Your task to perform on an android device: Turn off the flashlight Image 0: 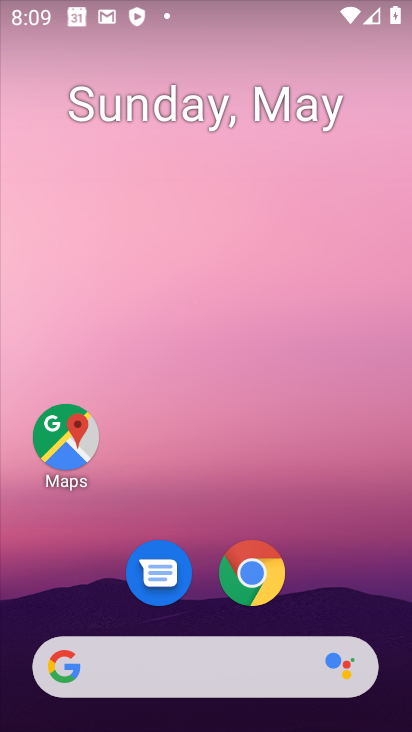
Step 0: drag from (226, 501) to (217, 0)
Your task to perform on an android device: Turn off the flashlight Image 1: 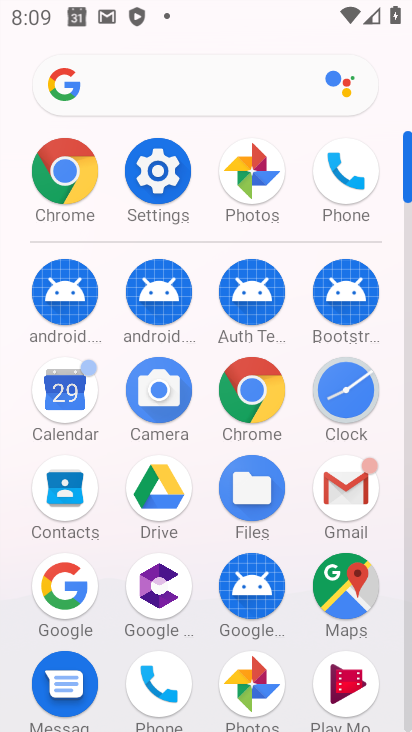
Step 1: click (158, 171)
Your task to perform on an android device: Turn off the flashlight Image 2: 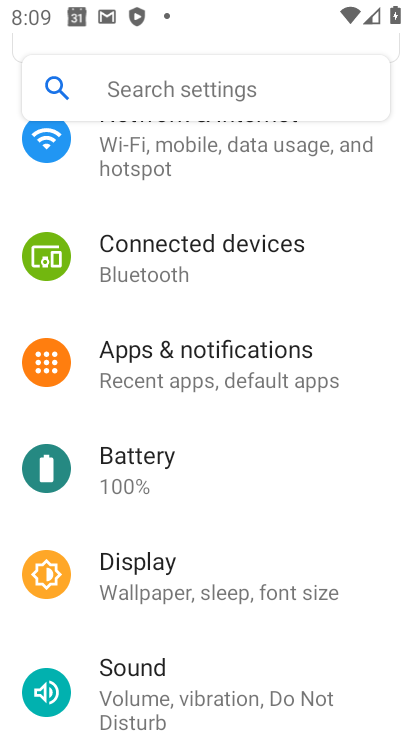
Step 2: click (203, 78)
Your task to perform on an android device: Turn off the flashlight Image 3: 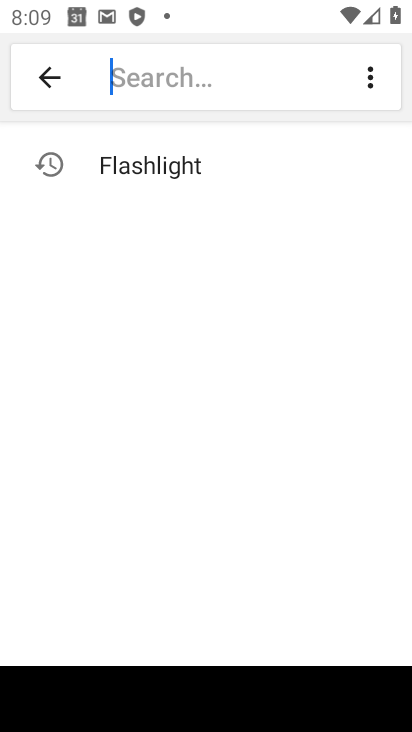
Step 3: click (183, 164)
Your task to perform on an android device: Turn off the flashlight Image 4: 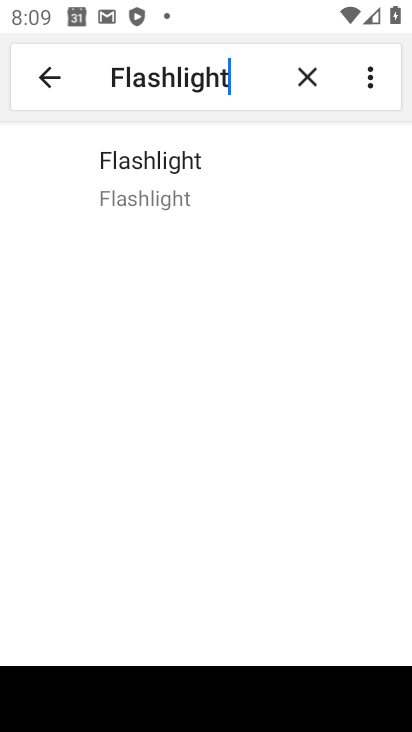
Step 4: click (185, 166)
Your task to perform on an android device: Turn off the flashlight Image 5: 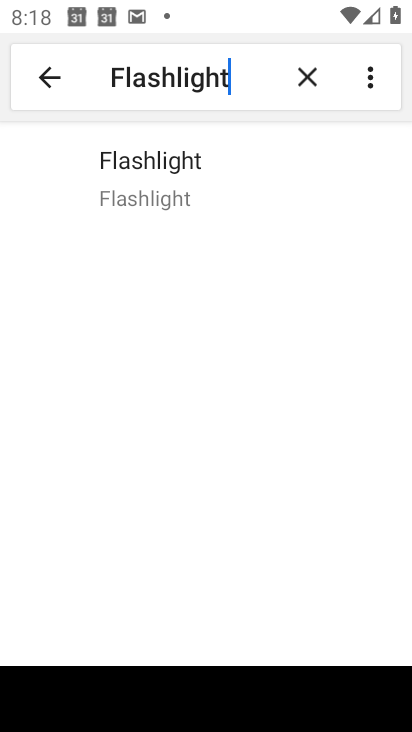
Step 5: task complete